Your task to perform on an android device: Search for flights from Buenos aires to Helsinki Image 0: 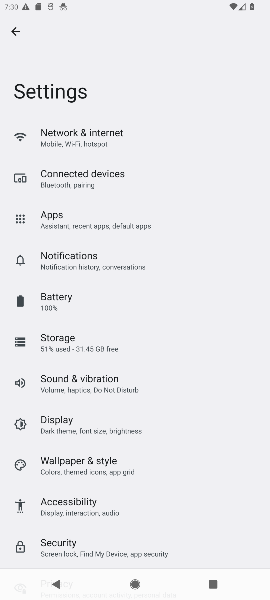
Step 0: press home button
Your task to perform on an android device: Search for flights from Buenos aires to Helsinki Image 1: 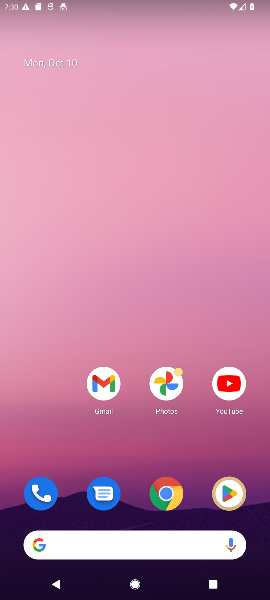
Step 1: click (133, 553)
Your task to perform on an android device: Search for flights from Buenos aires to Helsinki Image 2: 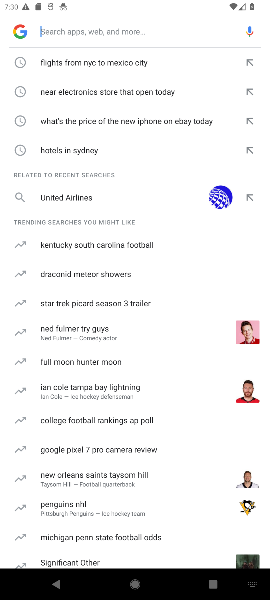
Step 2: type " flights from Buenos aires to Helsinki"
Your task to perform on an android device: Search for flights from Buenos aires to Helsinki Image 3: 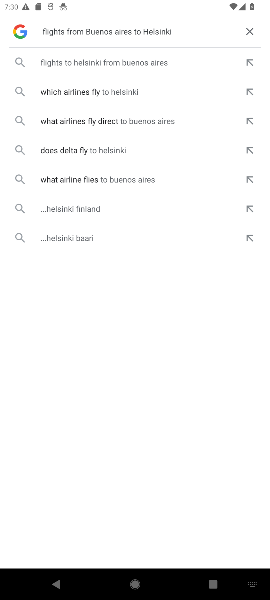
Step 3: click (113, 63)
Your task to perform on an android device: Search for flights from Buenos aires to Helsinki Image 4: 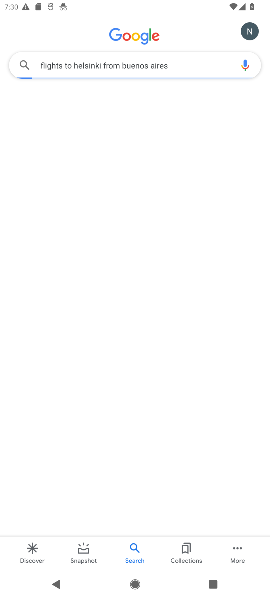
Step 4: click (113, 63)
Your task to perform on an android device: Search for flights from Buenos aires to Helsinki Image 5: 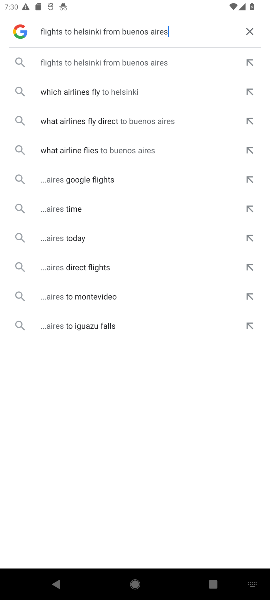
Step 5: click (168, 65)
Your task to perform on an android device: Search for flights from Buenos aires to Helsinki Image 6: 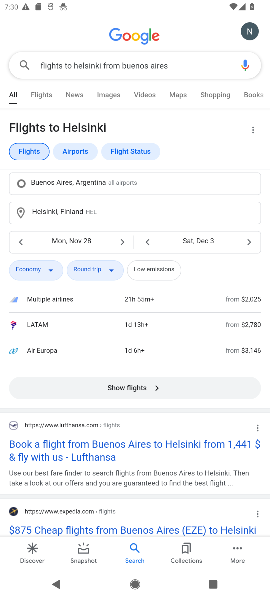
Step 6: click (102, 159)
Your task to perform on an android device: Search for flights from Buenos aires to Helsinki Image 7: 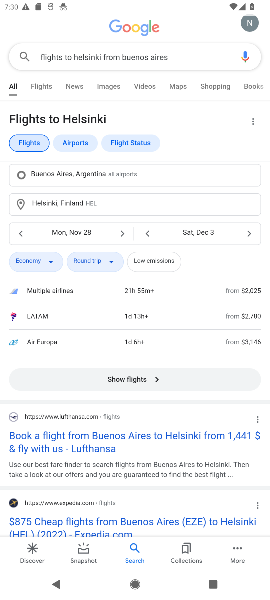
Step 7: task complete